Your task to perform on an android device: Open the calendar app, open the side menu, and click the "Day" option Image 0: 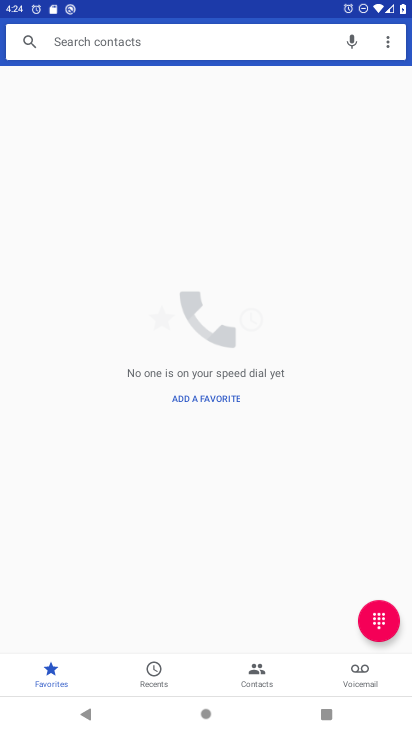
Step 0: press home button
Your task to perform on an android device: Open the calendar app, open the side menu, and click the "Day" option Image 1: 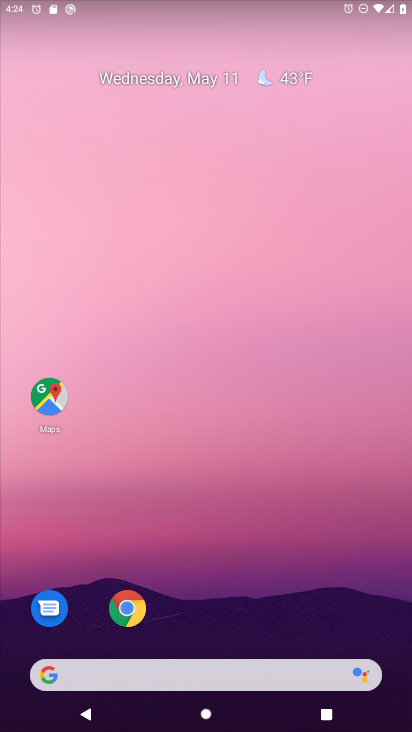
Step 1: drag from (229, 718) to (204, 214)
Your task to perform on an android device: Open the calendar app, open the side menu, and click the "Day" option Image 2: 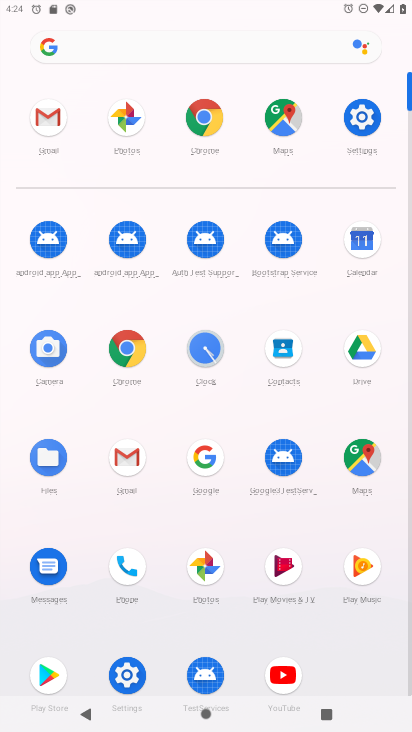
Step 2: click (364, 237)
Your task to perform on an android device: Open the calendar app, open the side menu, and click the "Day" option Image 3: 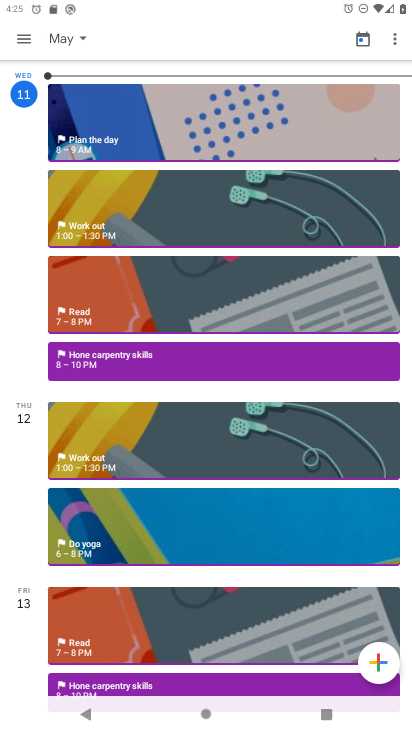
Step 3: click (19, 37)
Your task to perform on an android device: Open the calendar app, open the side menu, and click the "Day" option Image 4: 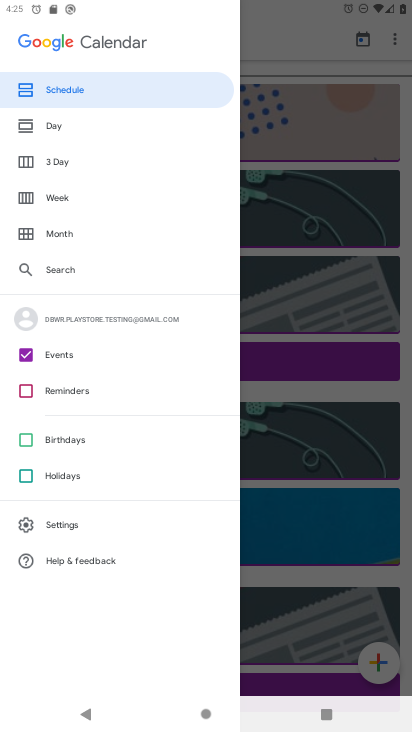
Step 4: click (55, 123)
Your task to perform on an android device: Open the calendar app, open the side menu, and click the "Day" option Image 5: 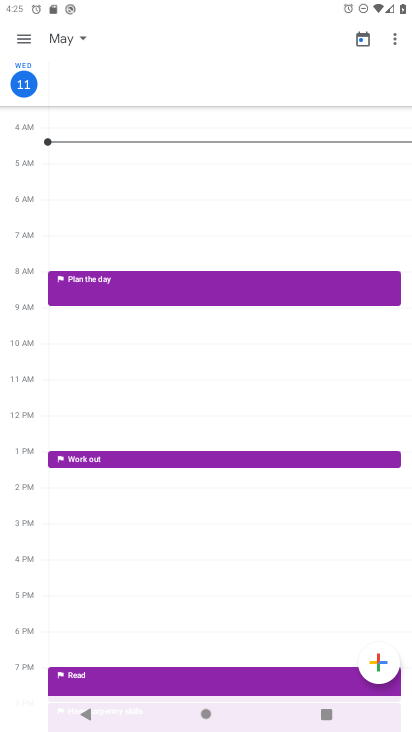
Step 5: task complete